Your task to perform on an android device: turn off location Image 0: 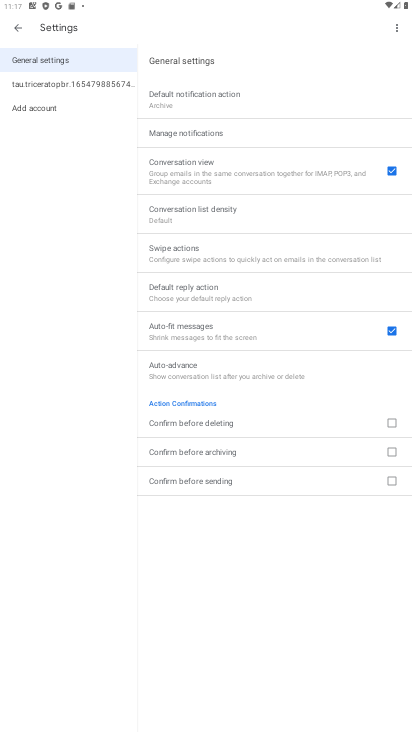
Step 0: press home button
Your task to perform on an android device: turn off location Image 1: 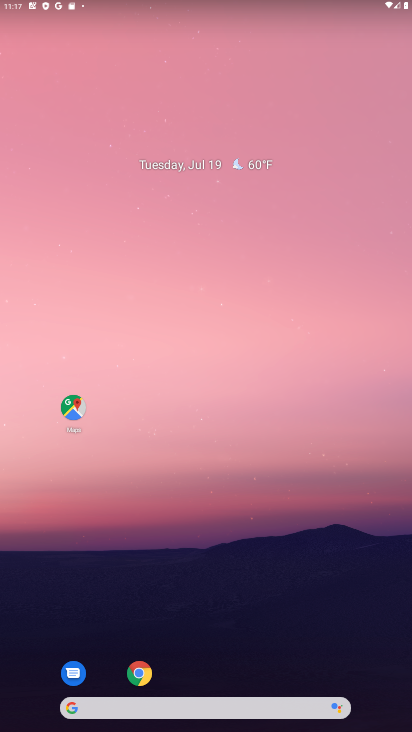
Step 1: drag from (386, 682) to (334, 231)
Your task to perform on an android device: turn off location Image 2: 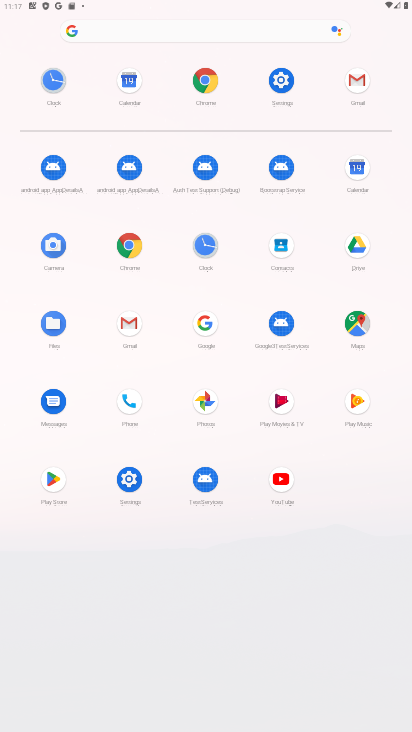
Step 2: click (129, 481)
Your task to perform on an android device: turn off location Image 3: 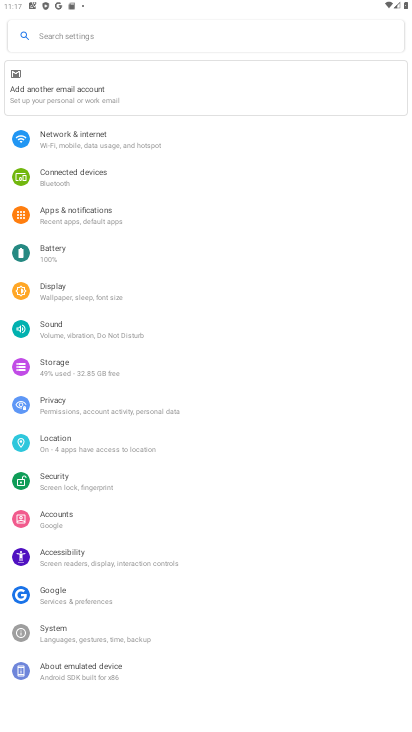
Step 3: click (49, 439)
Your task to perform on an android device: turn off location Image 4: 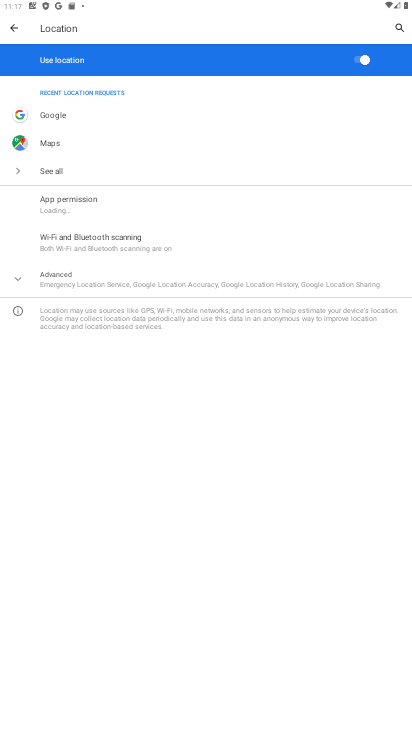
Step 4: click (356, 61)
Your task to perform on an android device: turn off location Image 5: 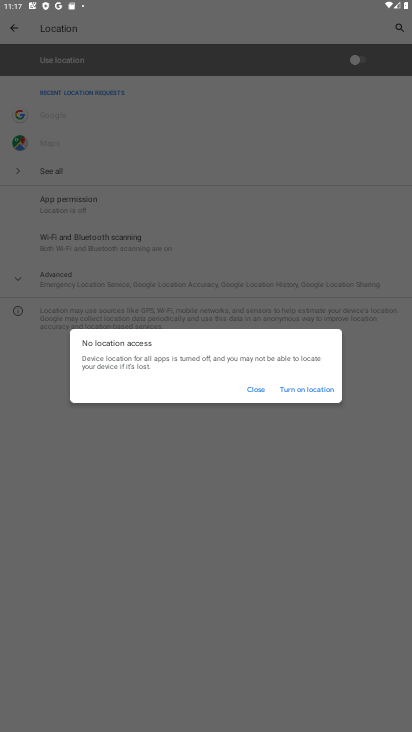
Step 5: click (252, 388)
Your task to perform on an android device: turn off location Image 6: 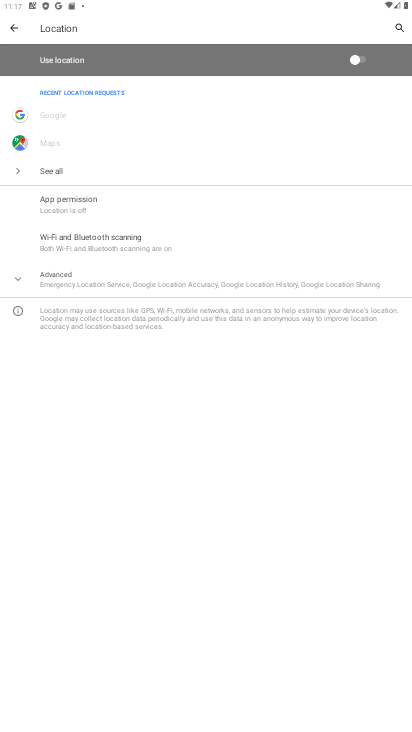
Step 6: task complete